Your task to perform on an android device: turn on improve location accuracy Image 0: 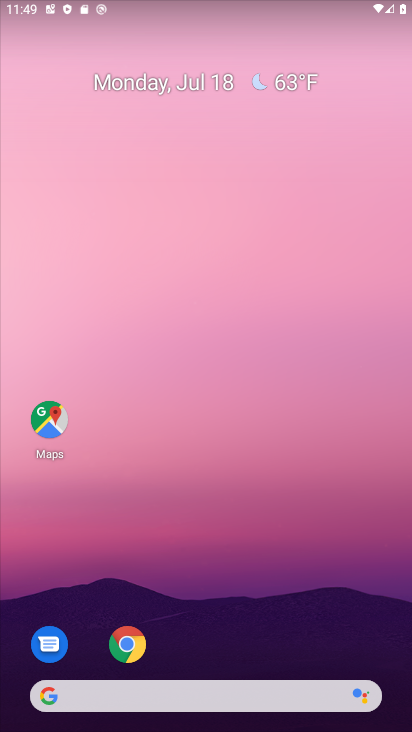
Step 0: drag from (199, 723) to (204, 277)
Your task to perform on an android device: turn on improve location accuracy Image 1: 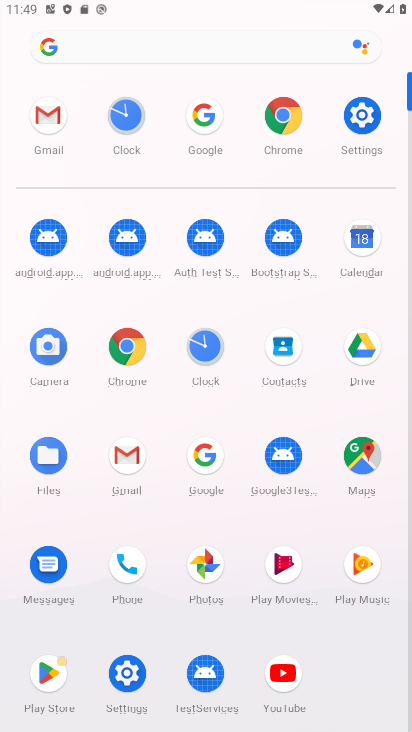
Step 1: click (362, 119)
Your task to perform on an android device: turn on improve location accuracy Image 2: 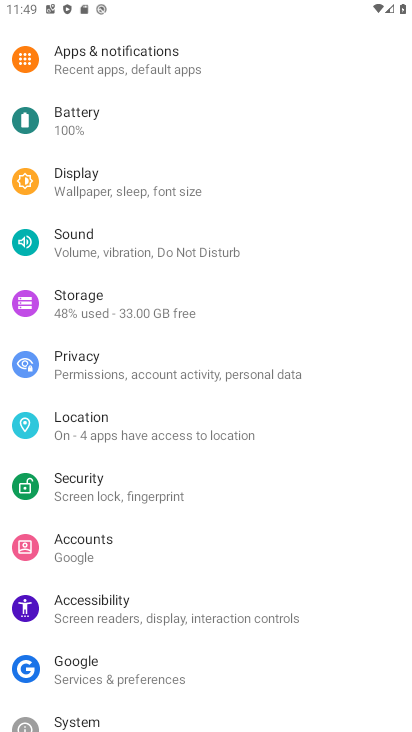
Step 2: click (81, 421)
Your task to perform on an android device: turn on improve location accuracy Image 3: 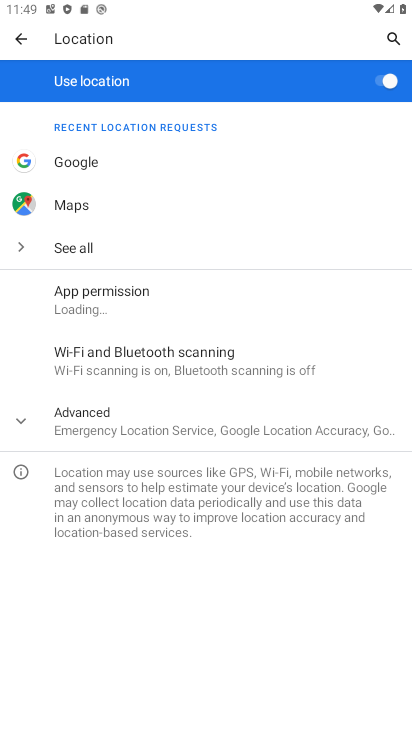
Step 3: click (117, 419)
Your task to perform on an android device: turn on improve location accuracy Image 4: 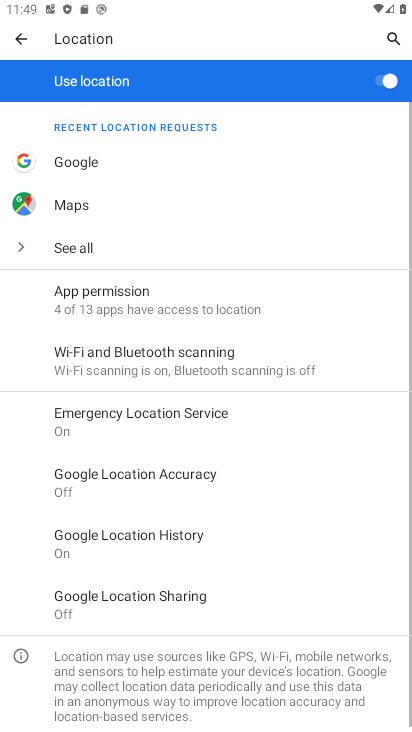
Step 4: click (141, 471)
Your task to perform on an android device: turn on improve location accuracy Image 5: 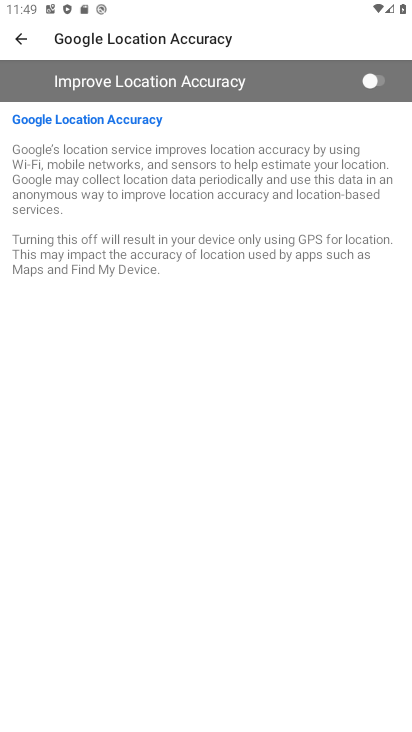
Step 5: click (385, 80)
Your task to perform on an android device: turn on improve location accuracy Image 6: 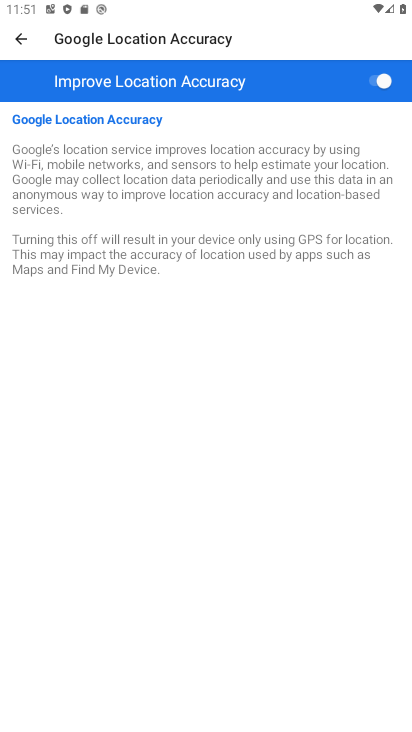
Step 6: task complete